Your task to perform on an android device: Show me recent news Image 0: 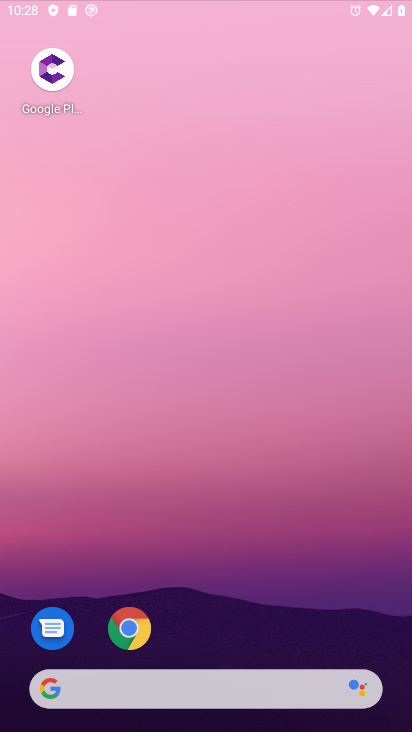
Step 0: press home button
Your task to perform on an android device: Show me recent news Image 1: 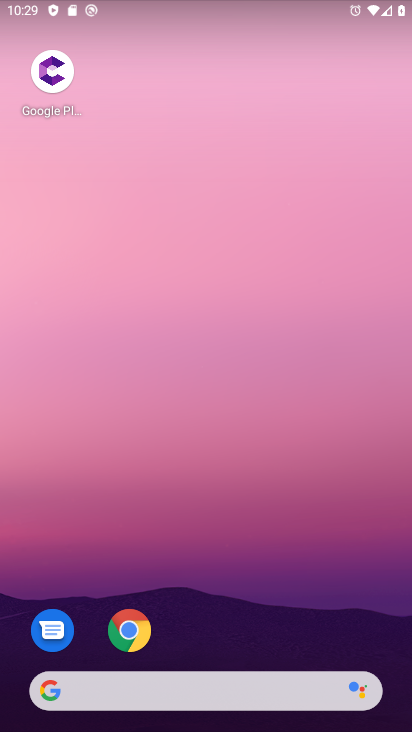
Step 1: drag from (319, 648) to (388, 6)
Your task to perform on an android device: Show me recent news Image 2: 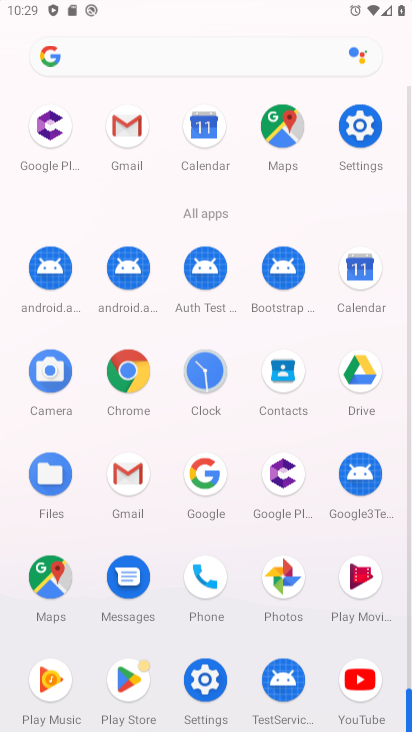
Step 2: drag from (218, 658) to (177, 0)
Your task to perform on an android device: Show me recent news Image 3: 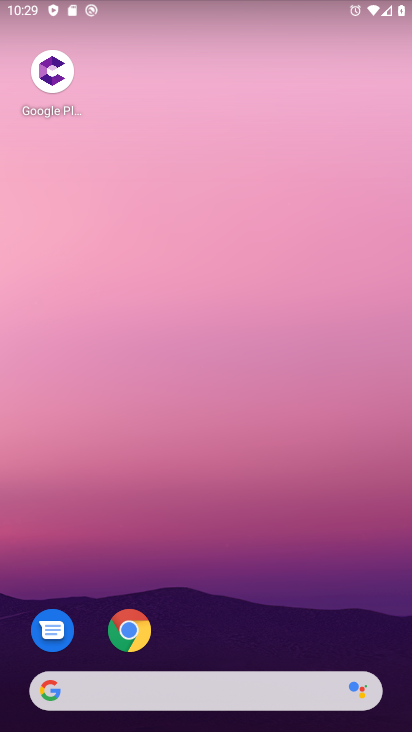
Step 3: drag from (286, 662) to (304, 34)
Your task to perform on an android device: Show me recent news Image 4: 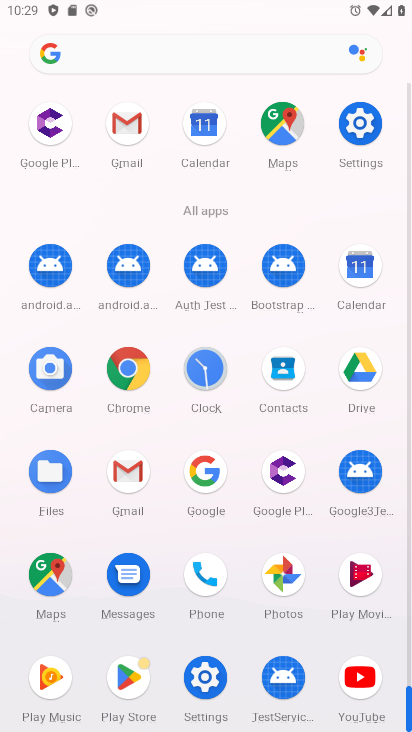
Step 4: drag from (290, 652) to (299, 67)
Your task to perform on an android device: Show me recent news Image 5: 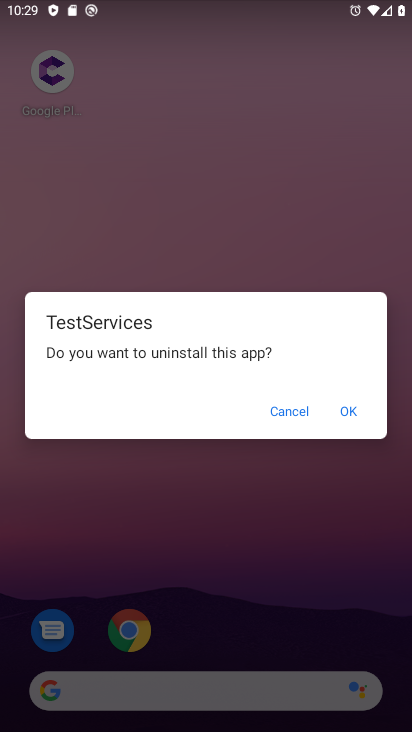
Step 5: drag from (257, 619) to (267, 11)
Your task to perform on an android device: Show me recent news Image 6: 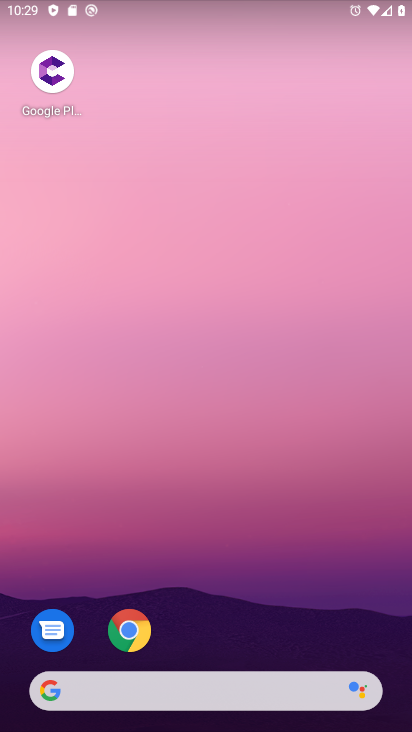
Step 6: drag from (300, 642) to (274, 7)
Your task to perform on an android device: Show me recent news Image 7: 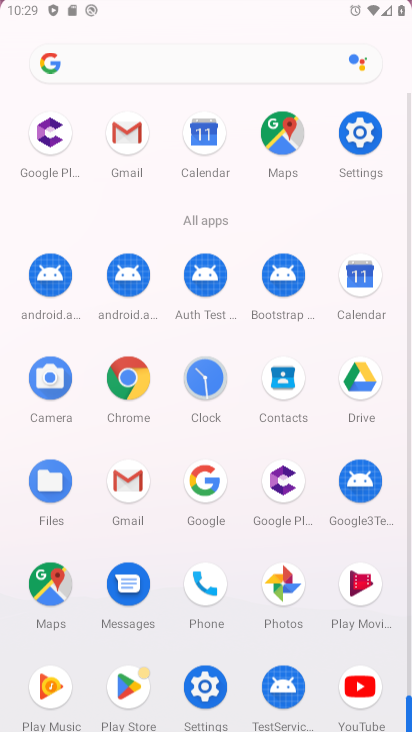
Step 7: drag from (307, 635) to (281, 56)
Your task to perform on an android device: Show me recent news Image 8: 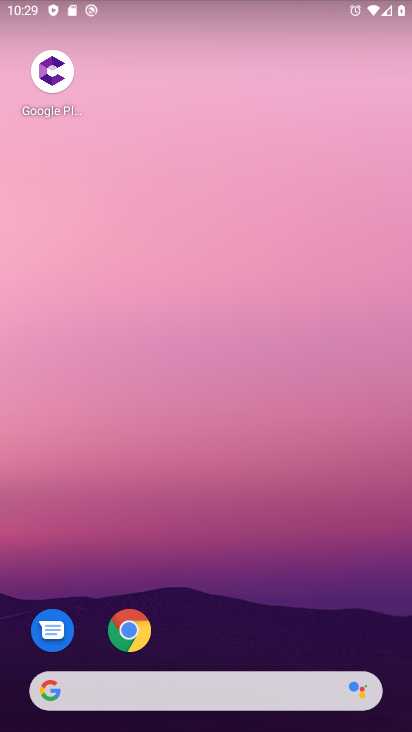
Step 8: drag from (266, 631) to (309, 19)
Your task to perform on an android device: Show me recent news Image 9: 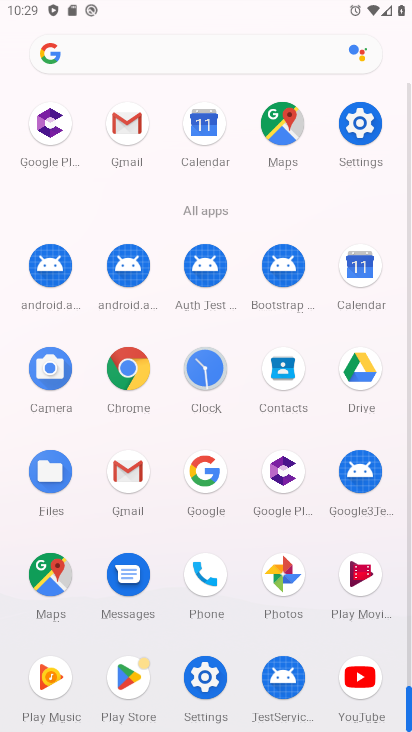
Step 9: click (122, 364)
Your task to perform on an android device: Show me recent news Image 10: 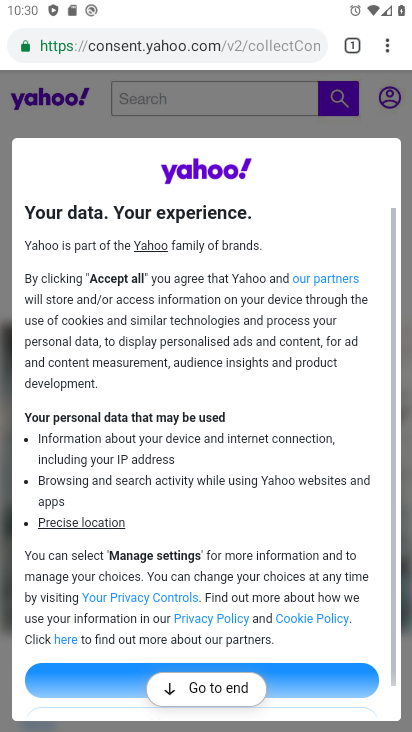
Step 10: task complete